Your task to perform on an android device: turn on the 12-hour format for clock Image 0: 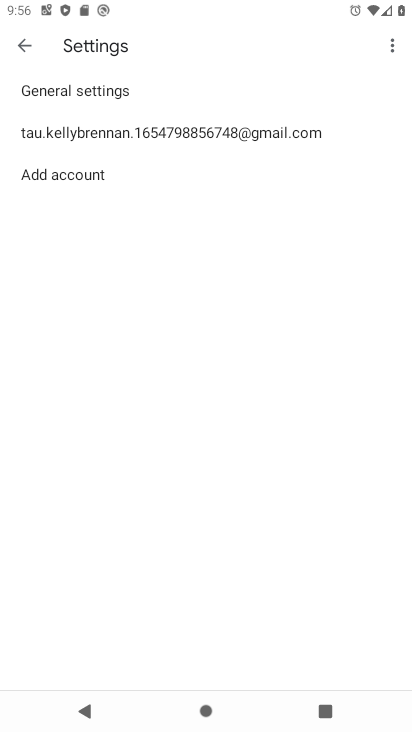
Step 0: press back button
Your task to perform on an android device: turn on the 12-hour format for clock Image 1: 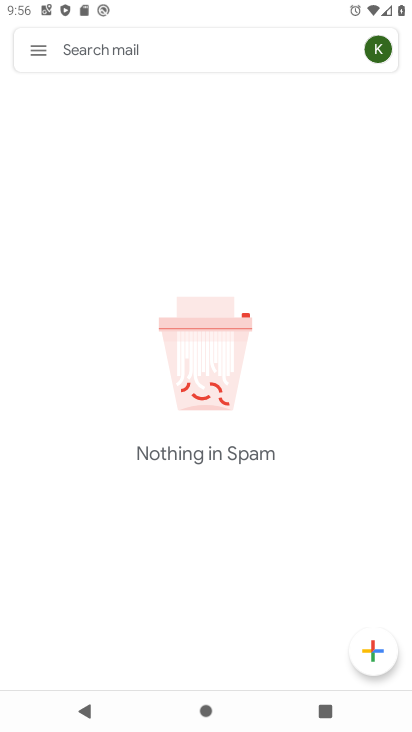
Step 1: click (39, 47)
Your task to perform on an android device: turn on the 12-hour format for clock Image 2: 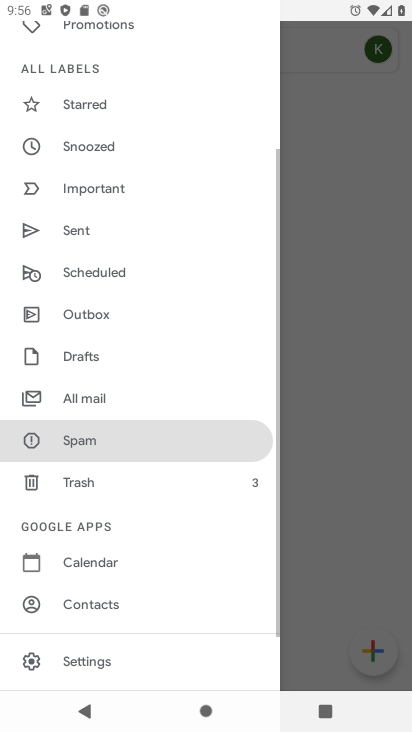
Step 2: click (89, 433)
Your task to perform on an android device: turn on the 12-hour format for clock Image 3: 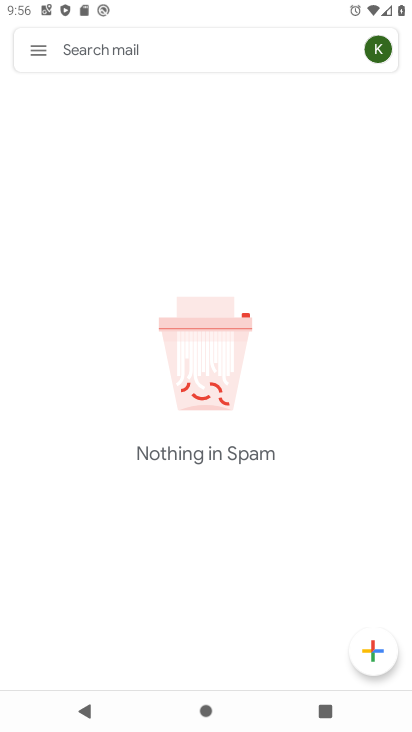
Step 3: press back button
Your task to perform on an android device: turn on the 12-hour format for clock Image 4: 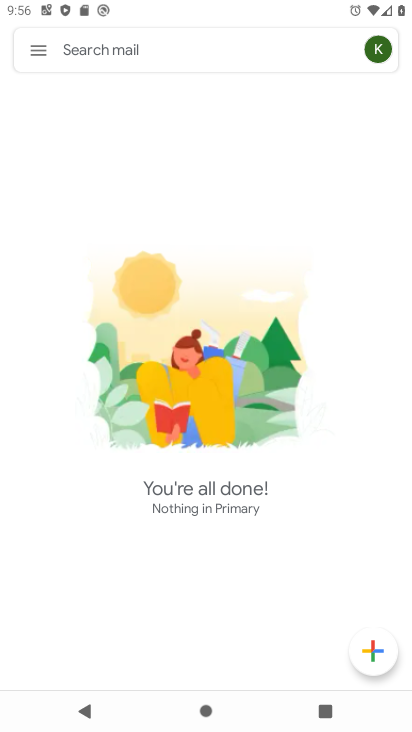
Step 4: press home button
Your task to perform on an android device: turn on the 12-hour format for clock Image 5: 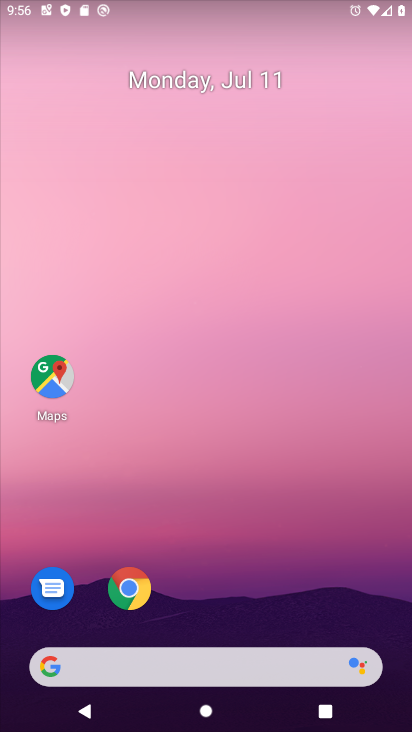
Step 5: drag from (213, 547) to (268, 18)
Your task to perform on an android device: turn on the 12-hour format for clock Image 6: 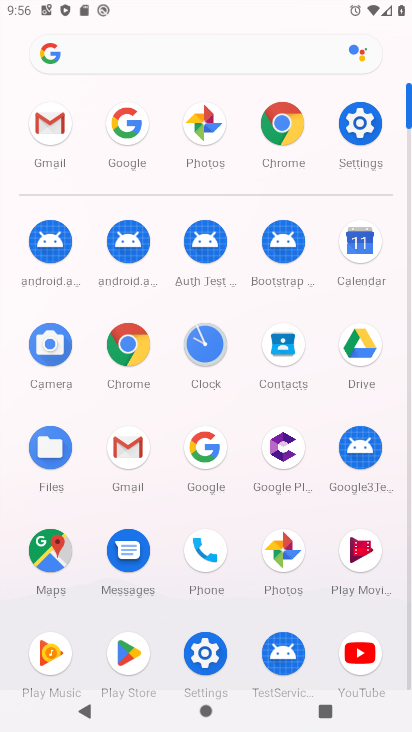
Step 6: click (158, 339)
Your task to perform on an android device: turn on the 12-hour format for clock Image 7: 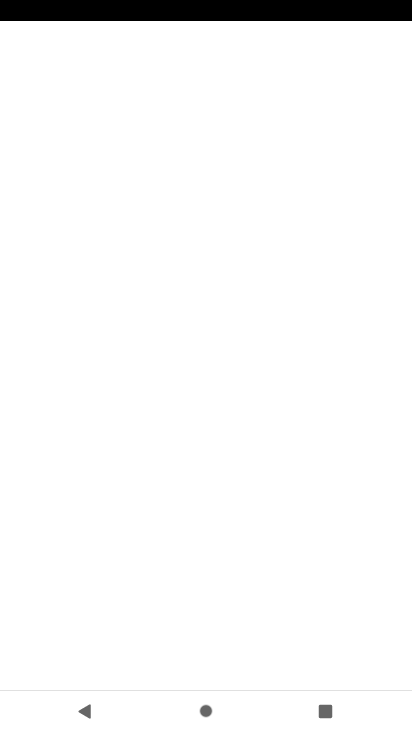
Step 7: click (197, 338)
Your task to perform on an android device: turn on the 12-hour format for clock Image 8: 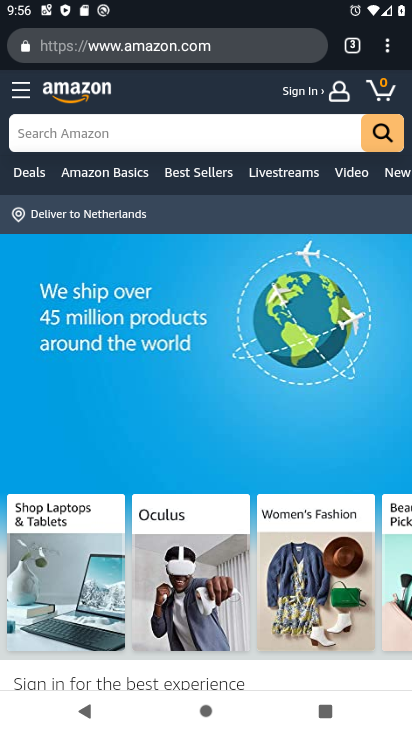
Step 8: press back button
Your task to perform on an android device: turn on the 12-hour format for clock Image 9: 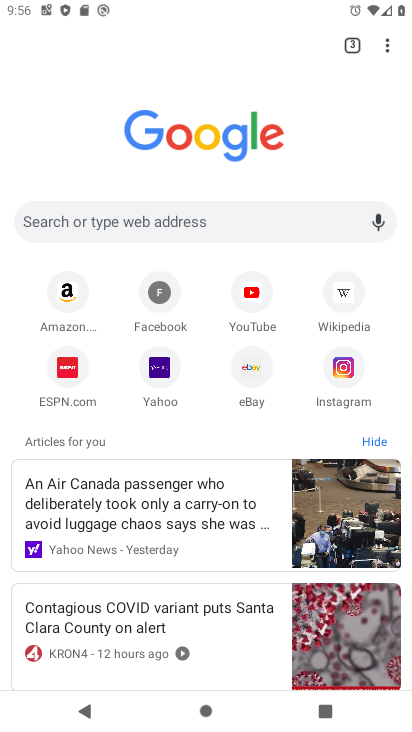
Step 9: press back button
Your task to perform on an android device: turn on the 12-hour format for clock Image 10: 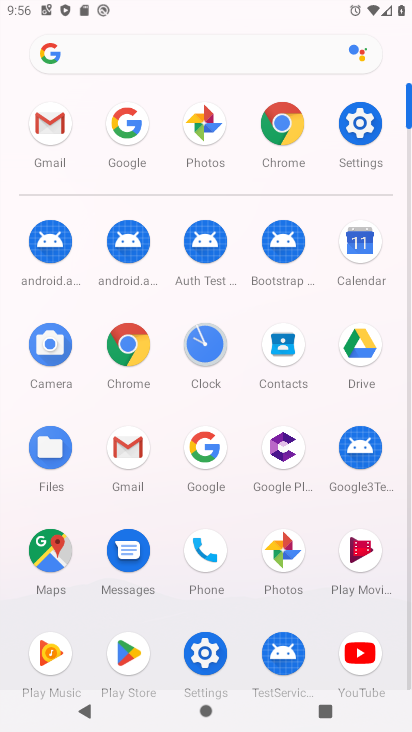
Step 10: click (213, 341)
Your task to perform on an android device: turn on the 12-hour format for clock Image 11: 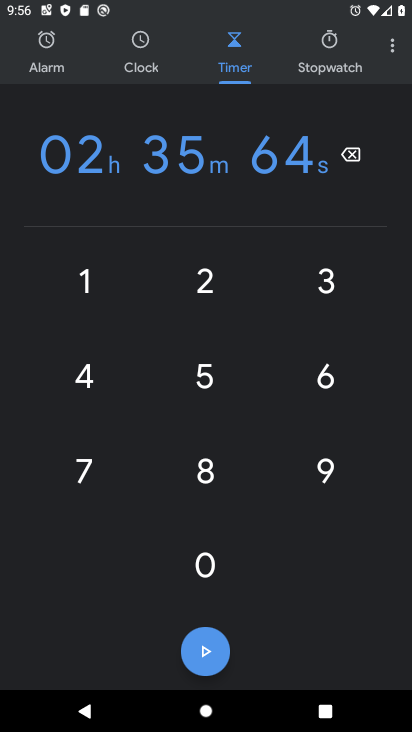
Step 11: click (396, 45)
Your task to perform on an android device: turn on the 12-hour format for clock Image 12: 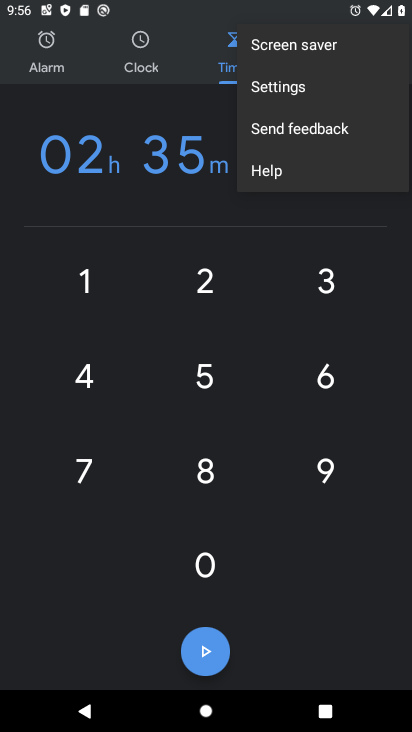
Step 12: click (296, 89)
Your task to perform on an android device: turn on the 12-hour format for clock Image 13: 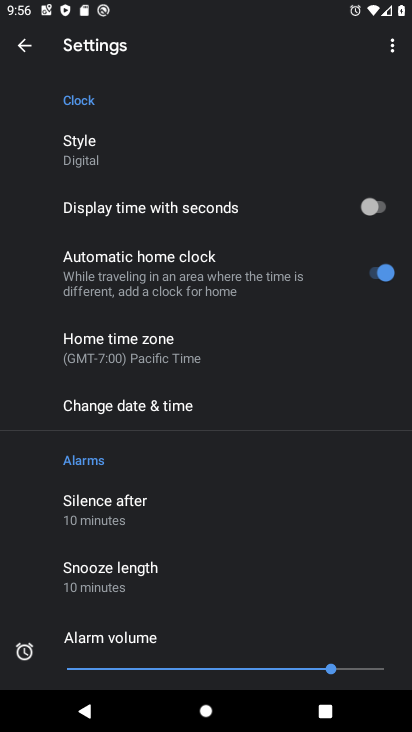
Step 13: click (140, 411)
Your task to perform on an android device: turn on the 12-hour format for clock Image 14: 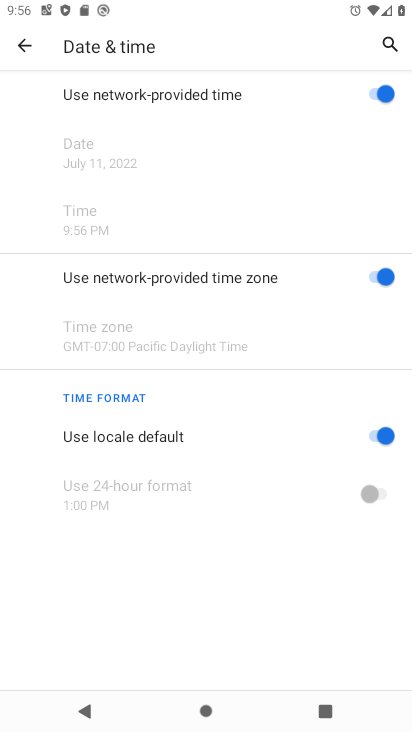
Step 14: task complete